Your task to perform on an android device: Go to wifi settings Image 0: 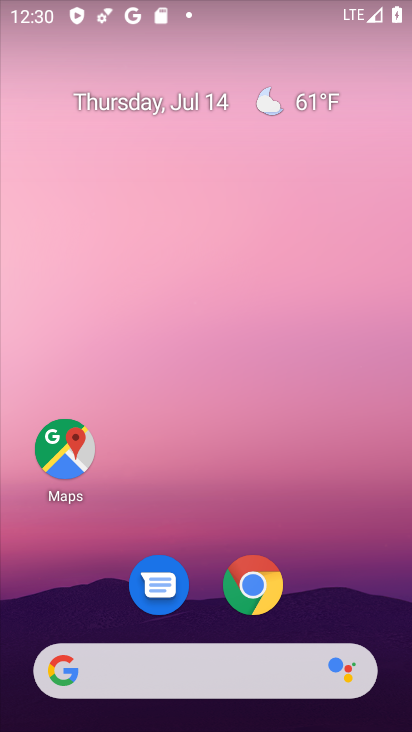
Step 0: drag from (306, 606) to (328, 25)
Your task to perform on an android device: Go to wifi settings Image 1: 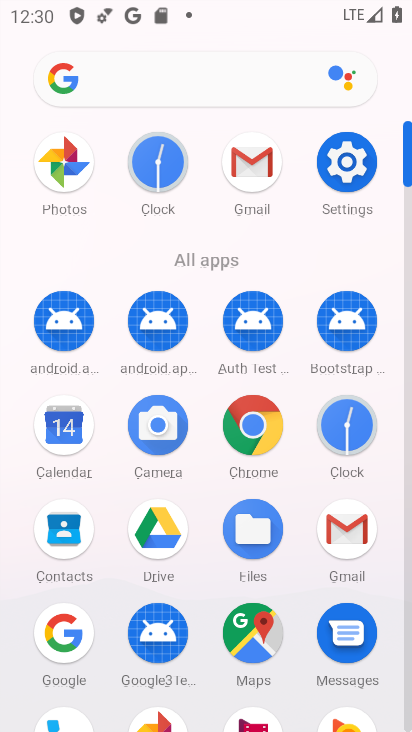
Step 1: click (339, 168)
Your task to perform on an android device: Go to wifi settings Image 2: 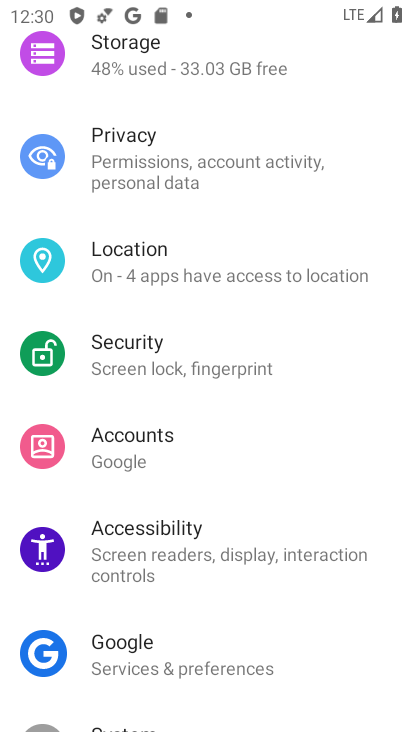
Step 2: drag from (252, 228) to (307, 636)
Your task to perform on an android device: Go to wifi settings Image 3: 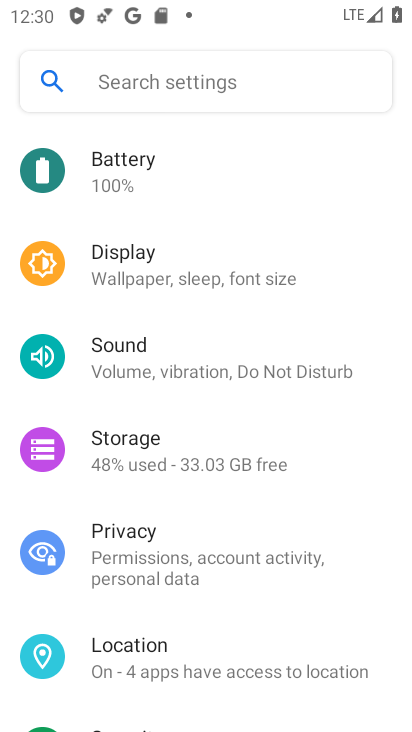
Step 3: drag from (195, 215) to (228, 568)
Your task to perform on an android device: Go to wifi settings Image 4: 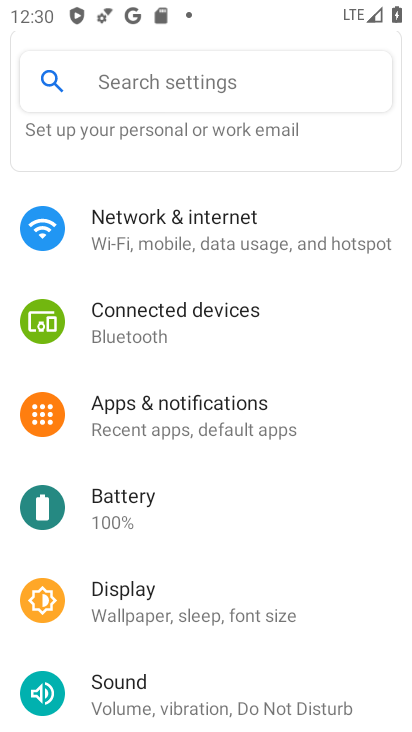
Step 4: click (194, 228)
Your task to perform on an android device: Go to wifi settings Image 5: 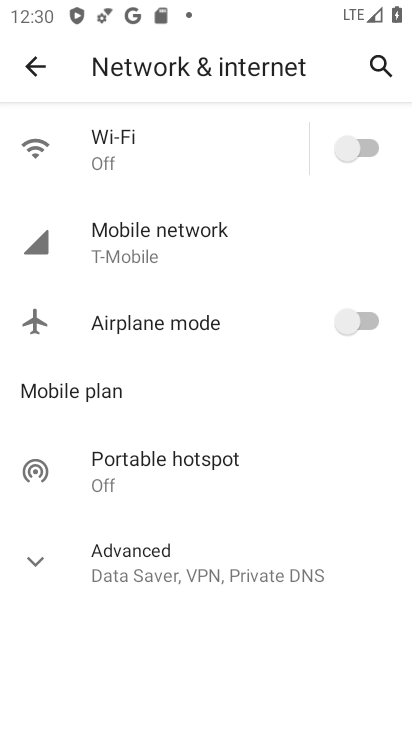
Step 5: click (115, 148)
Your task to perform on an android device: Go to wifi settings Image 6: 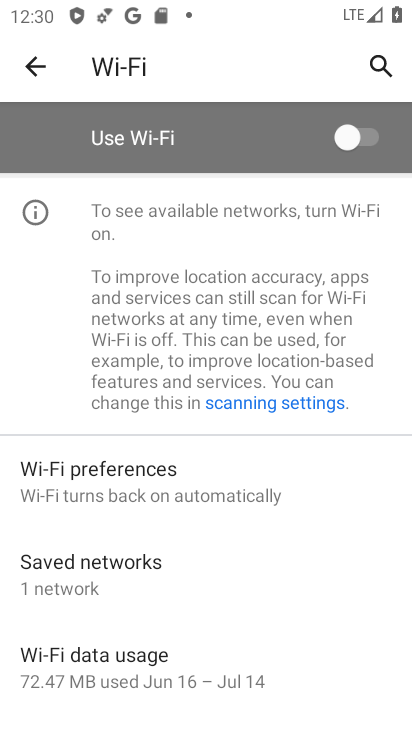
Step 6: task complete